Your task to perform on an android device: Open calendar and show me the third week of next month Image 0: 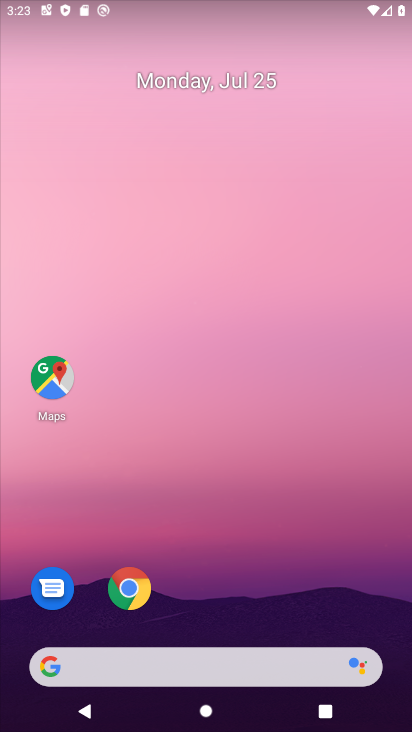
Step 0: drag from (214, 604) to (246, 2)
Your task to perform on an android device: Open calendar and show me the third week of next month Image 1: 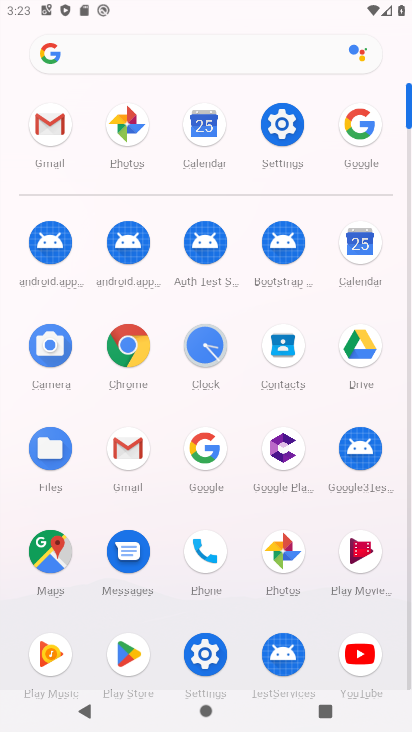
Step 1: click (369, 277)
Your task to perform on an android device: Open calendar and show me the third week of next month Image 2: 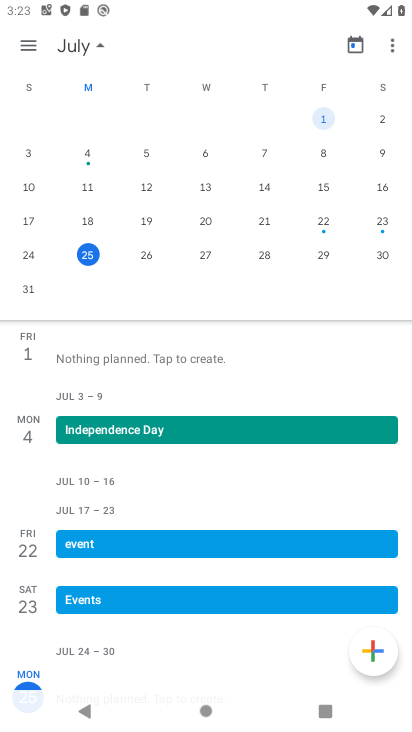
Step 2: drag from (348, 192) to (57, 192)
Your task to perform on an android device: Open calendar and show me the third week of next month Image 3: 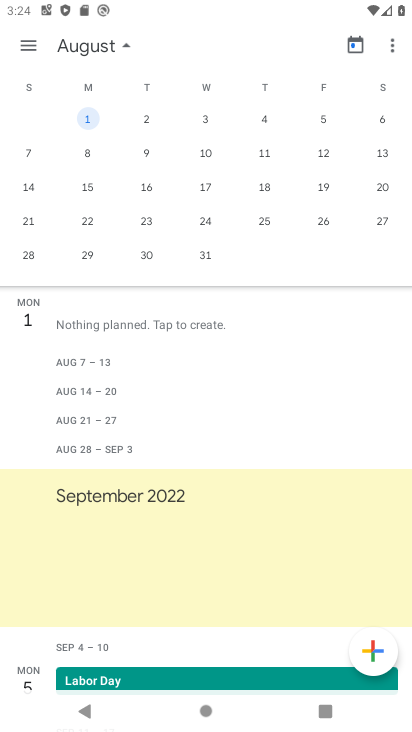
Step 3: click (32, 201)
Your task to perform on an android device: Open calendar and show me the third week of next month Image 4: 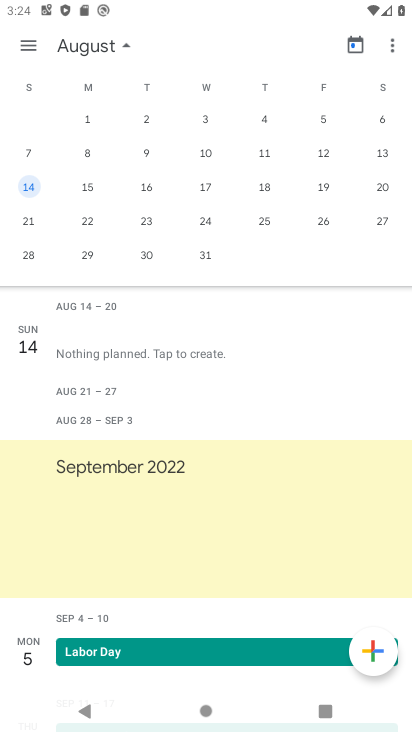
Step 4: task complete